Your task to perform on an android device: see tabs open on other devices in the chrome app Image 0: 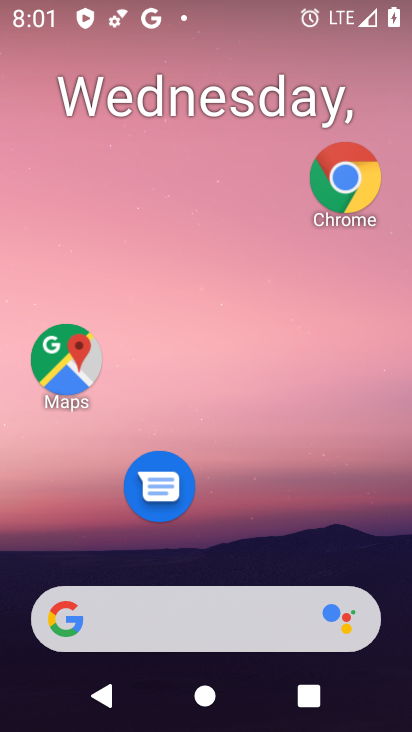
Step 0: drag from (209, 578) to (253, 119)
Your task to perform on an android device: see tabs open on other devices in the chrome app Image 1: 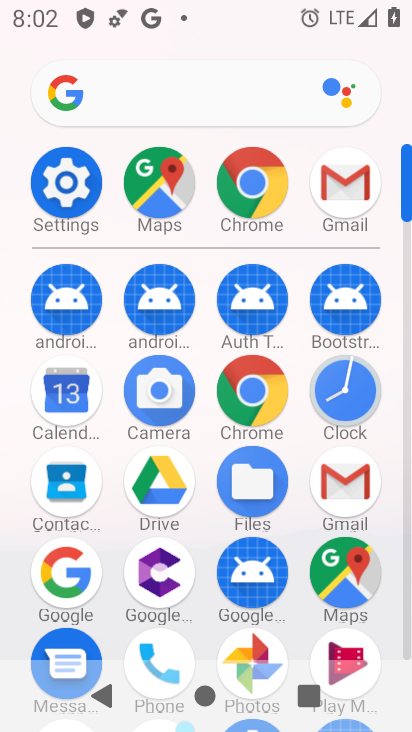
Step 1: click (248, 409)
Your task to perform on an android device: see tabs open on other devices in the chrome app Image 2: 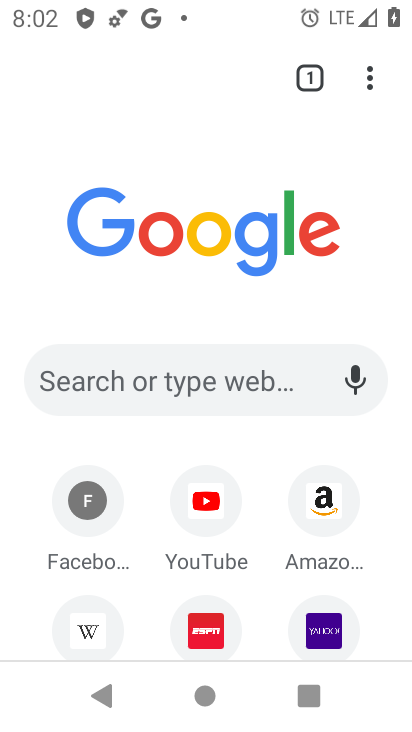
Step 2: task complete